Your task to perform on an android device: see sites visited before in the chrome app Image 0: 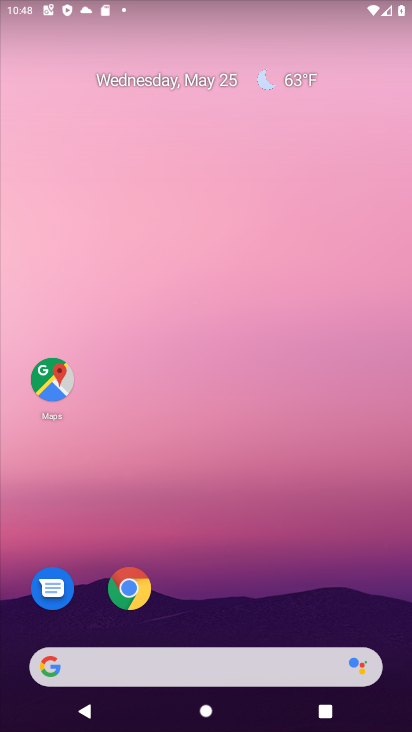
Step 0: click (133, 590)
Your task to perform on an android device: see sites visited before in the chrome app Image 1: 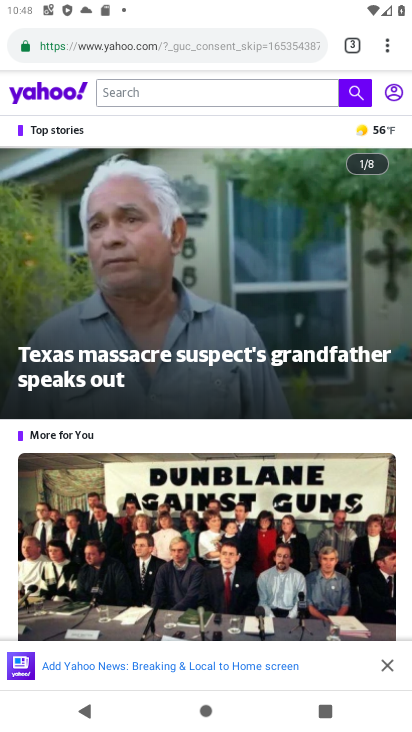
Step 1: drag from (133, 589) to (141, 411)
Your task to perform on an android device: see sites visited before in the chrome app Image 2: 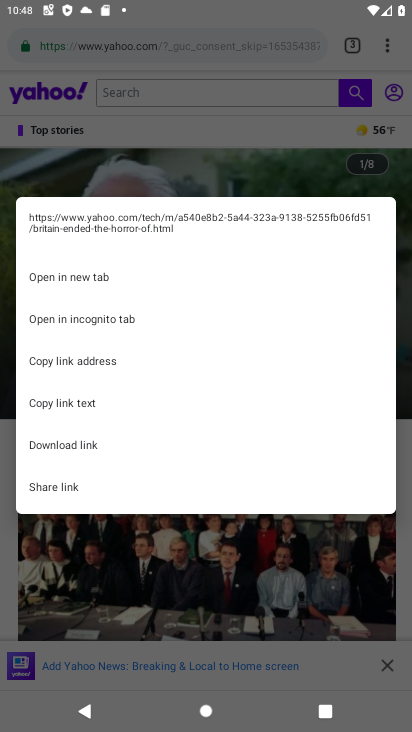
Step 2: click (265, 585)
Your task to perform on an android device: see sites visited before in the chrome app Image 3: 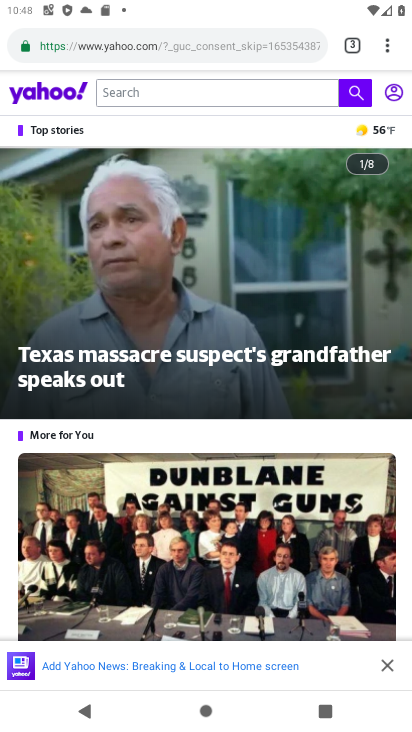
Step 3: click (389, 48)
Your task to perform on an android device: see sites visited before in the chrome app Image 4: 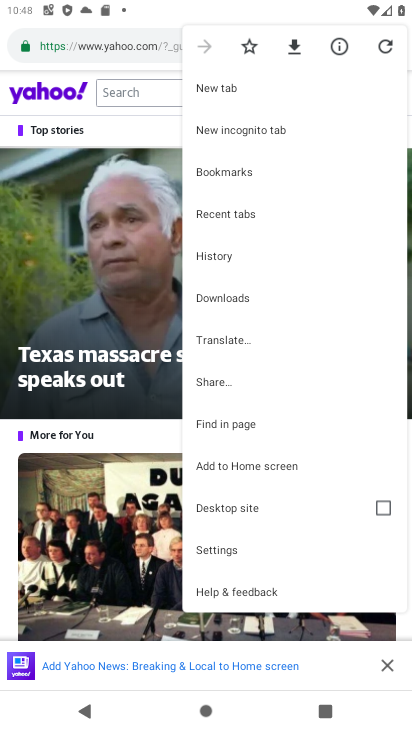
Step 4: click (233, 255)
Your task to perform on an android device: see sites visited before in the chrome app Image 5: 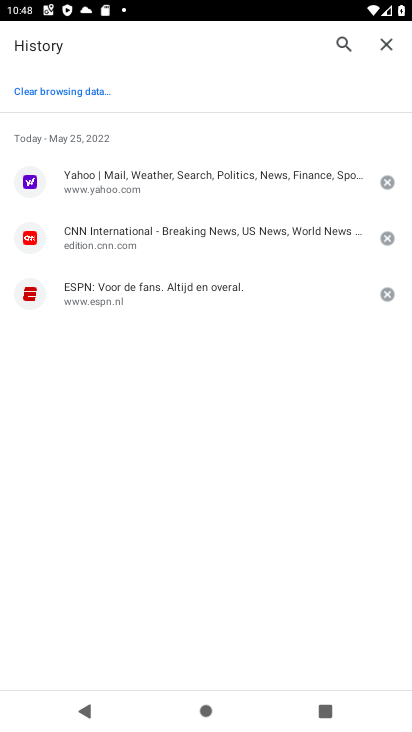
Step 5: task complete